Your task to perform on an android device: toggle location history Image 0: 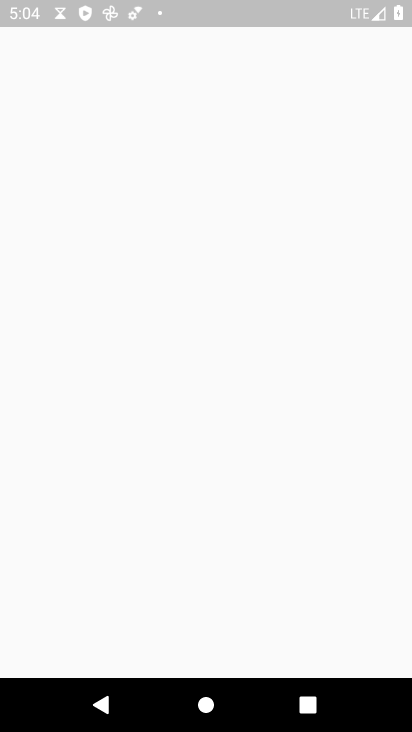
Step 0: press back button
Your task to perform on an android device: toggle location history Image 1: 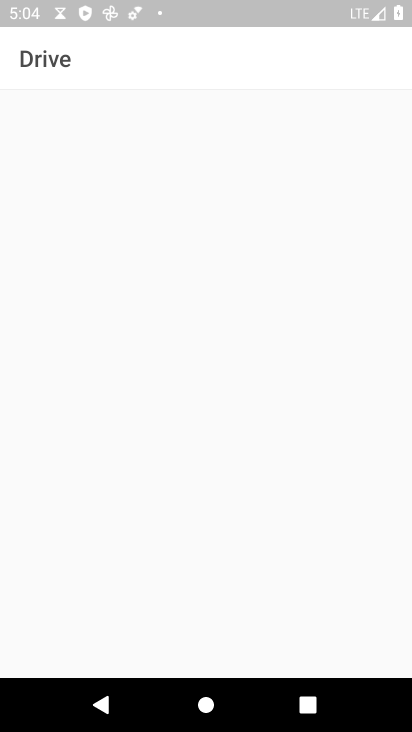
Step 1: press back button
Your task to perform on an android device: toggle location history Image 2: 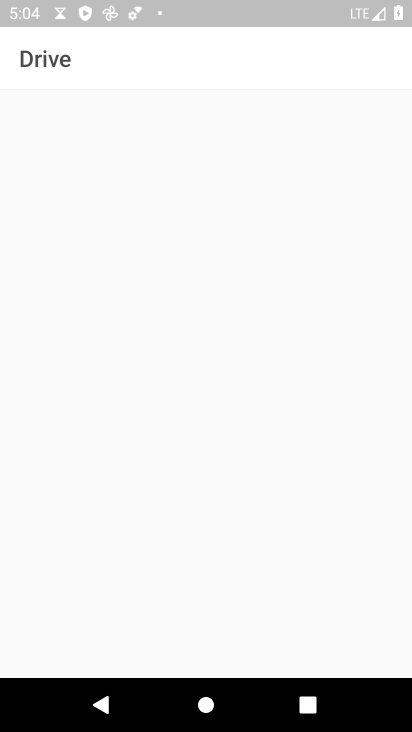
Step 2: press home button
Your task to perform on an android device: toggle location history Image 3: 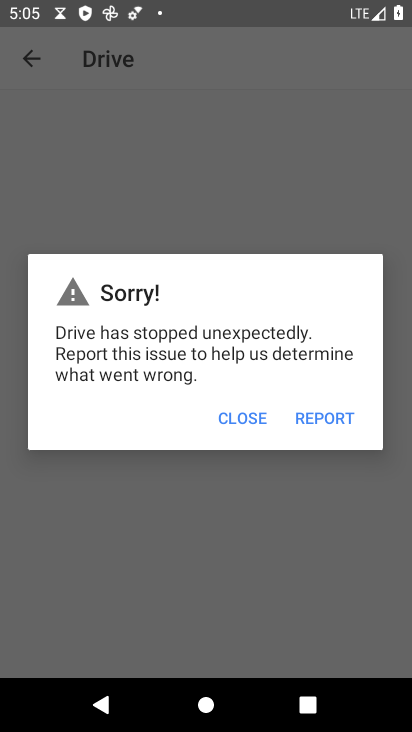
Step 3: press home button
Your task to perform on an android device: toggle location history Image 4: 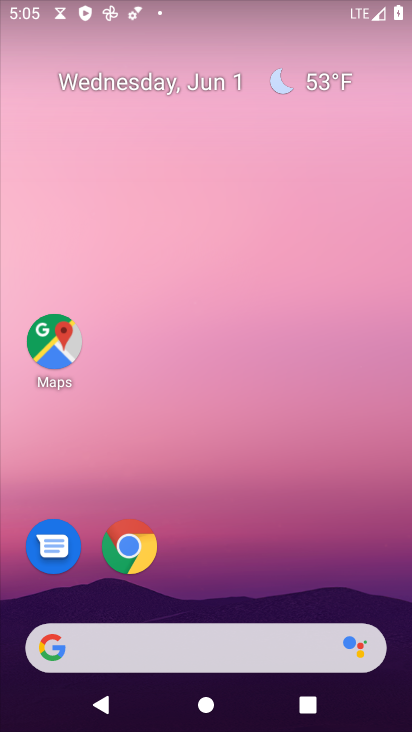
Step 4: drag from (291, 547) to (317, 90)
Your task to perform on an android device: toggle location history Image 5: 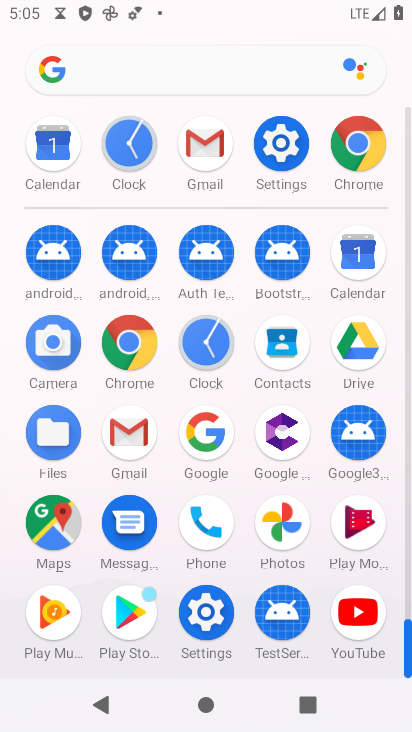
Step 5: drag from (0, 557) to (21, 204)
Your task to perform on an android device: toggle location history Image 6: 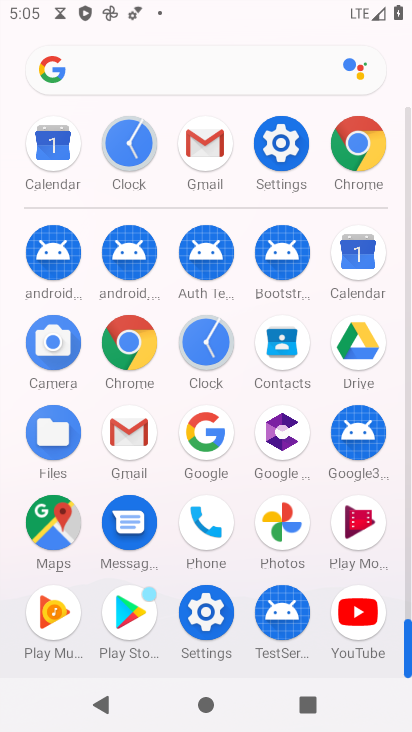
Step 6: drag from (7, 539) to (17, 186)
Your task to perform on an android device: toggle location history Image 7: 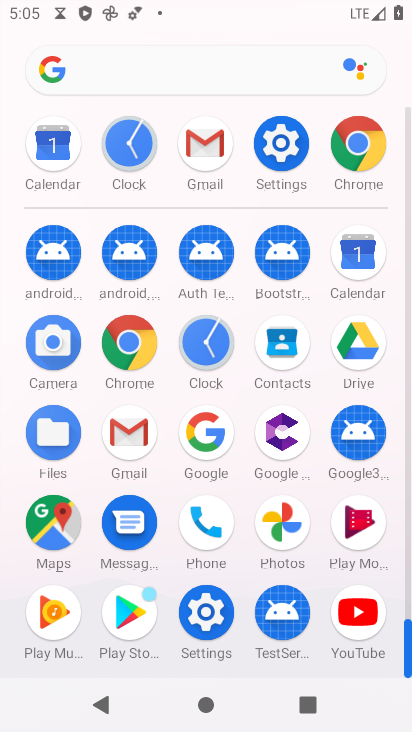
Step 7: click (207, 609)
Your task to perform on an android device: toggle location history Image 8: 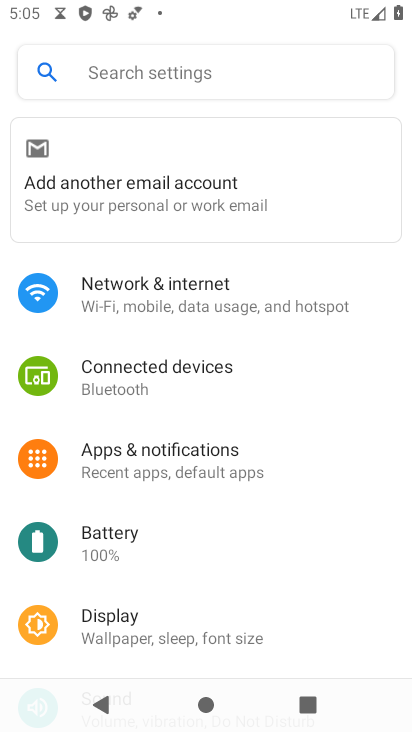
Step 8: drag from (268, 537) to (219, 144)
Your task to perform on an android device: toggle location history Image 9: 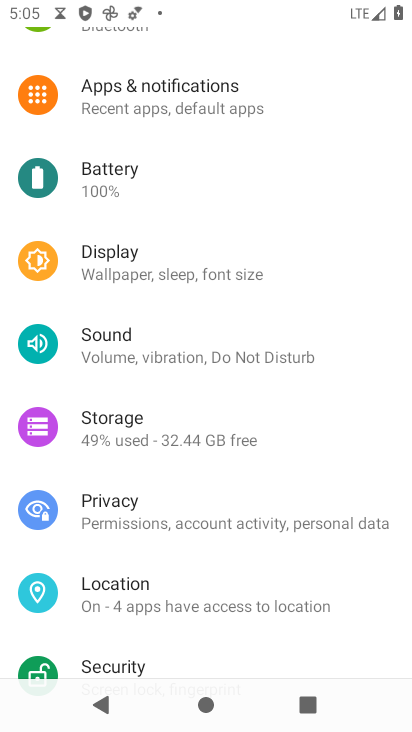
Step 9: click (172, 597)
Your task to perform on an android device: toggle location history Image 10: 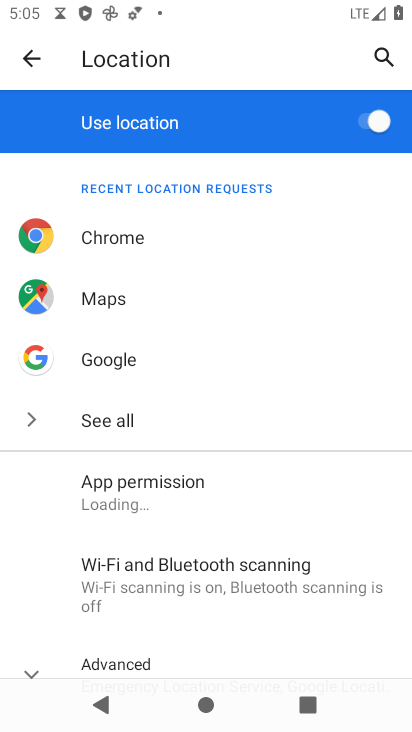
Step 10: drag from (233, 531) to (275, 203)
Your task to perform on an android device: toggle location history Image 11: 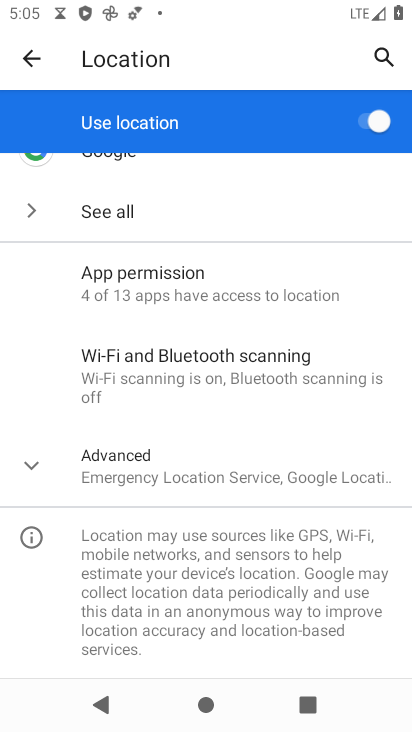
Step 11: click (55, 473)
Your task to perform on an android device: toggle location history Image 12: 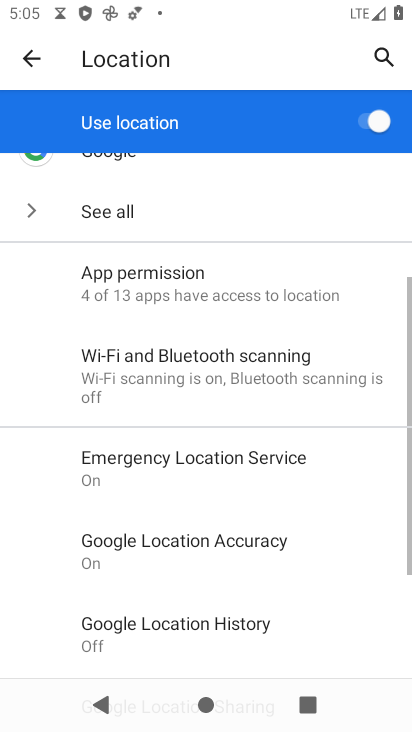
Step 12: drag from (287, 559) to (282, 218)
Your task to perform on an android device: toggle location history Image 13: 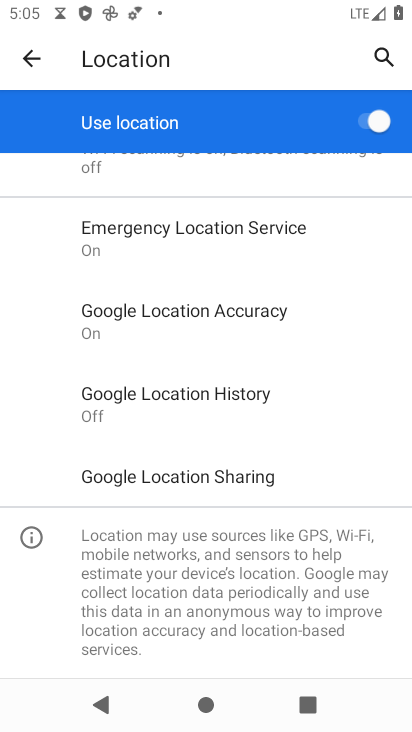
Step 13: click (203, 399)
Your task to perform on an android device: toggle location history Image 14: 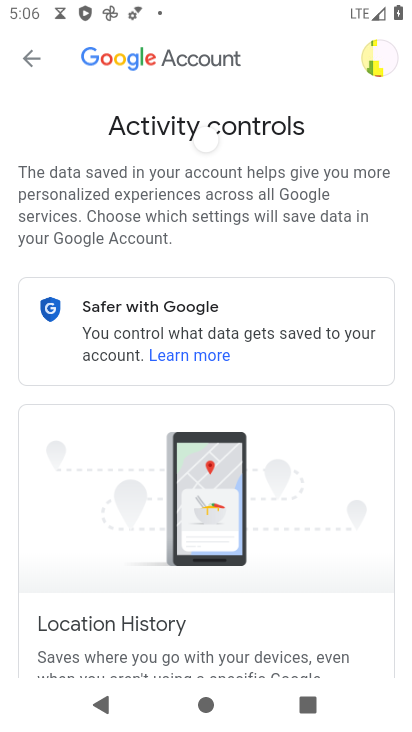
Step 14: drag from (269, 465) to (245, 118)
Your task to perform on an android device: toggle location history Image 15: 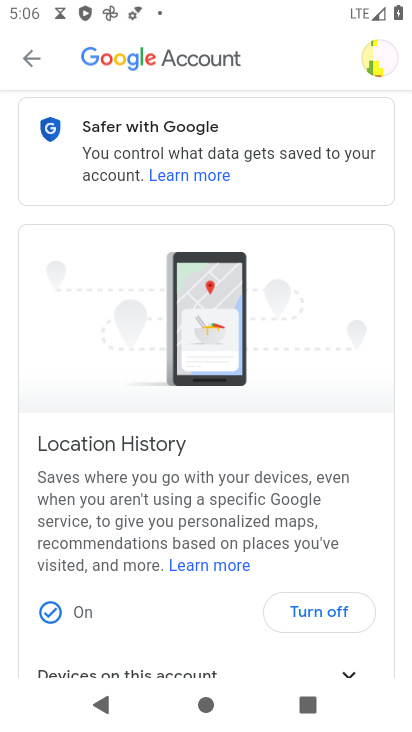
Step 15: drag from (217, 544) to (252, 150)
Your task to perform on an android device: toggle location history Image 16: 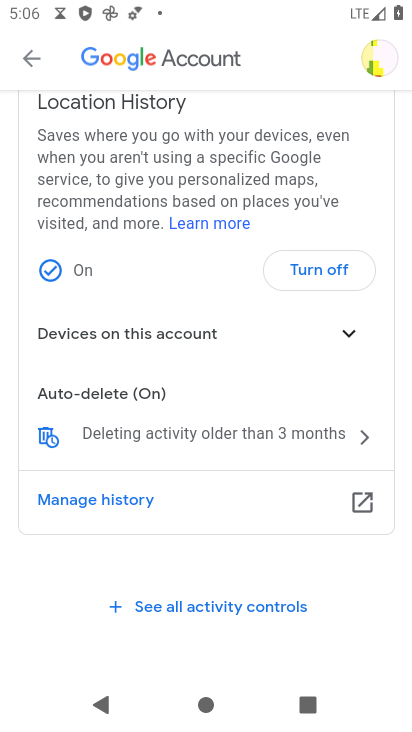
Step 16: click (89, 432)
Your task to perform on an android device: toggle location history Image 17: 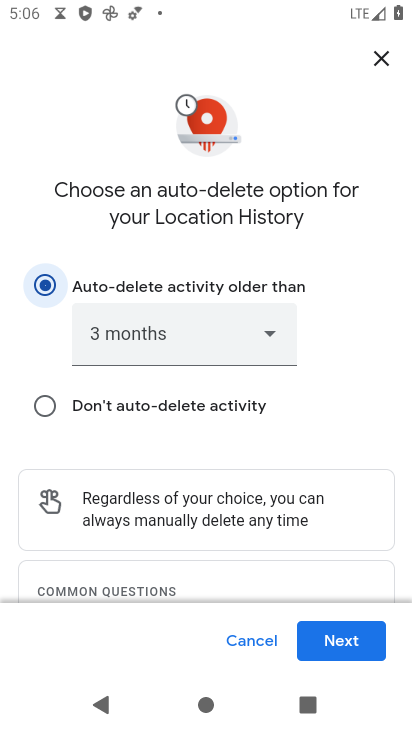
Step 17: click (350, 639)
Your task to perform on an android device: toggle location history Image 18: 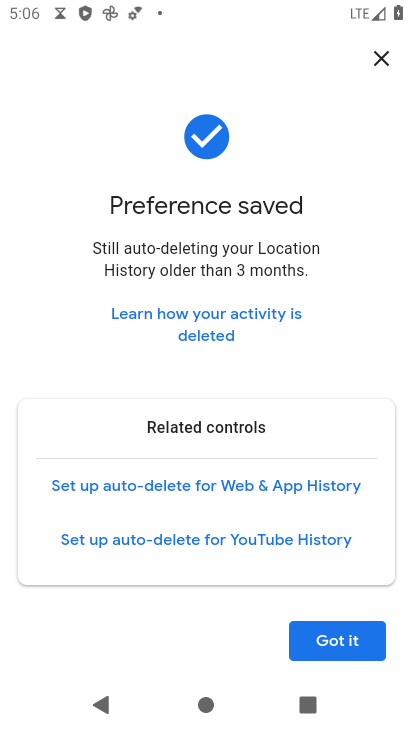
Step 18: click (350, 639)
Your task to perform on an android device: toggle location history Image 19: 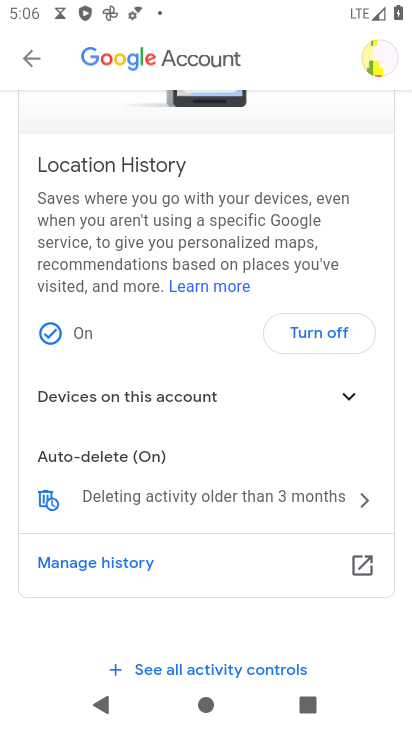
Step 19: task complete